Your task to perform on an android device: clear history in the chrome app Image 0: 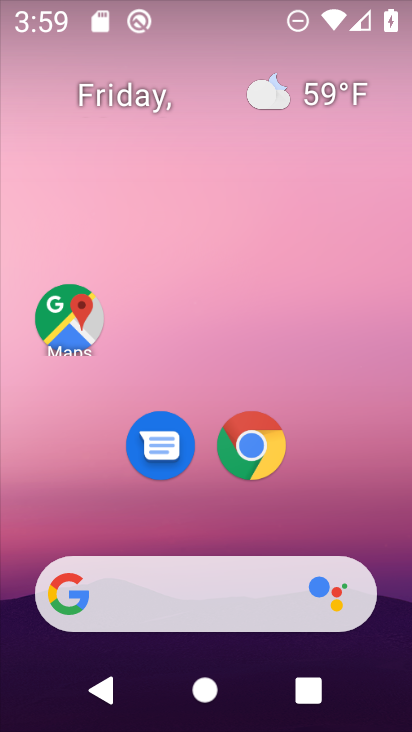
Step 0: click (247, 443)
Your task to perform on an android device: clear history in the chrome app Image 1: 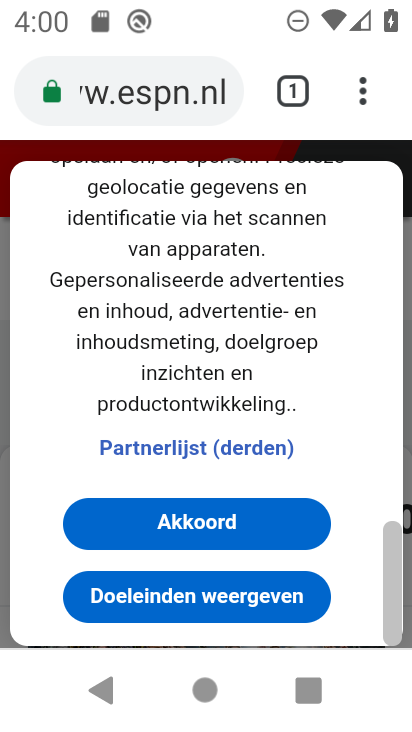
Step 1: click (359, 94)
Your task to perform on an android device: clear history in the chrome app Image 2: 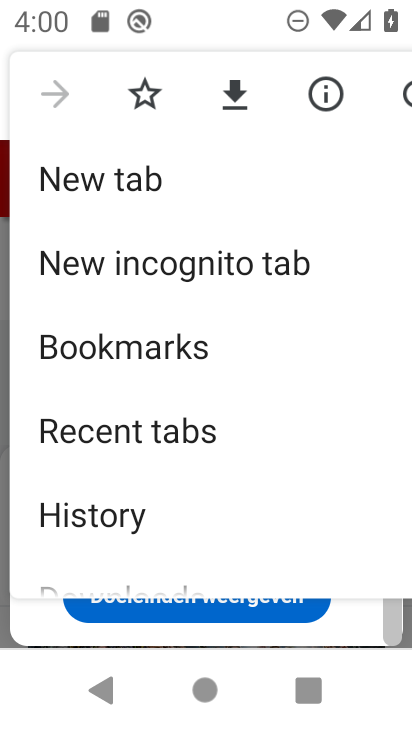
Step 2: click (84, 509)
Your task to perform on an android device: clear history in the chrome app Image 3: 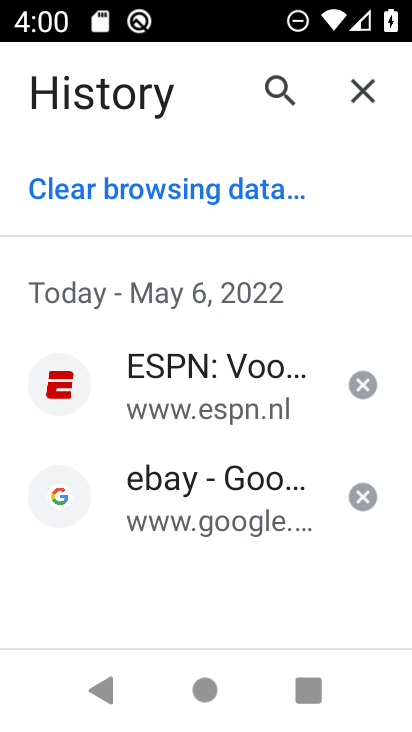
Step 3: click (141, 186)
Your task to perform on an android device: clear history in the chrome app Image 4: 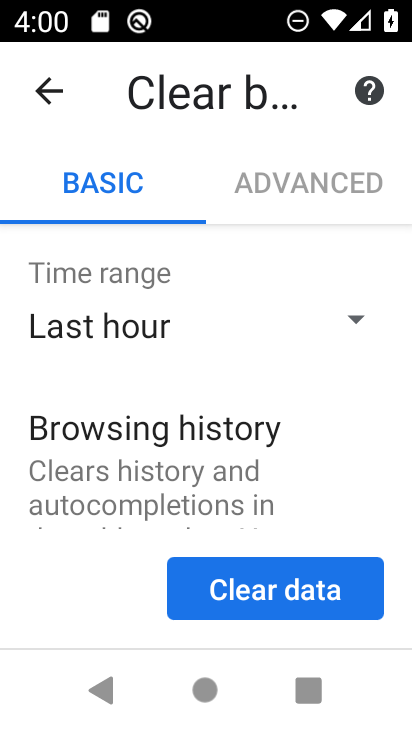
Step 4: drag from (254, 485) to (269, 216)
Your task to perform on an android device: clear history in the chrome app Image 5: 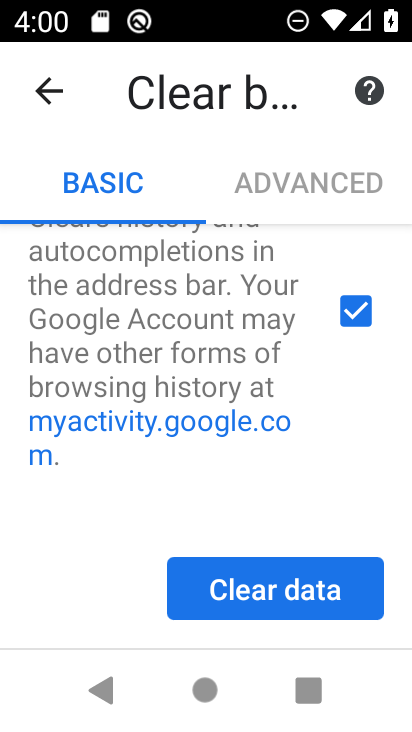
Step 5: drag from (239, 471) to (242, 110)
Your task to perform on an android device: clear history in the chrome app Image 6: 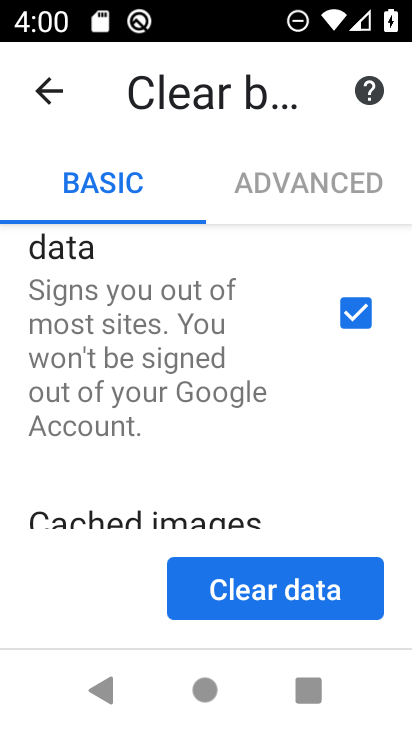
Step 6: click (357, 309)
Your task to perform on an android device: clear history in the chrome app Image 7: 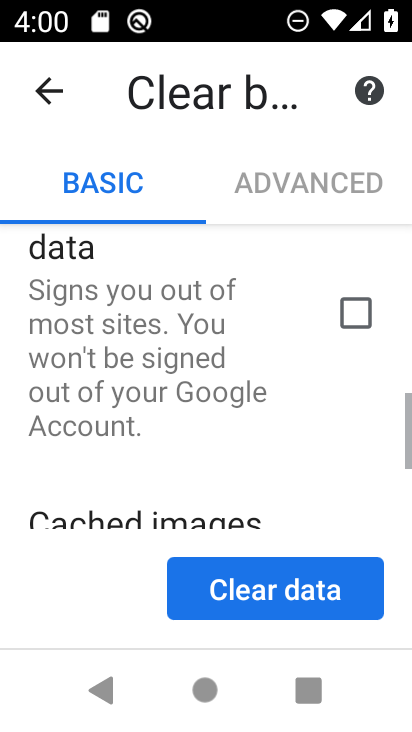
Step 7: drag from (272, 488) to (257, 144)
Your task to perform on an android device: clear history in the chrome app Image 8: 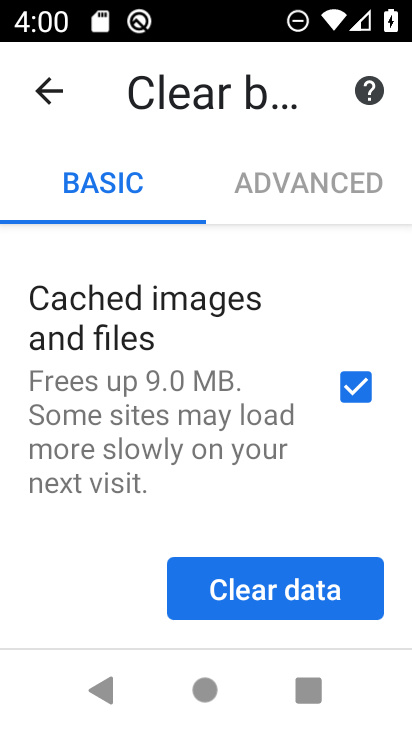
Step 8: click (354, 393)
Your task to perform on an android device: clear history in the chrome app Image 9: 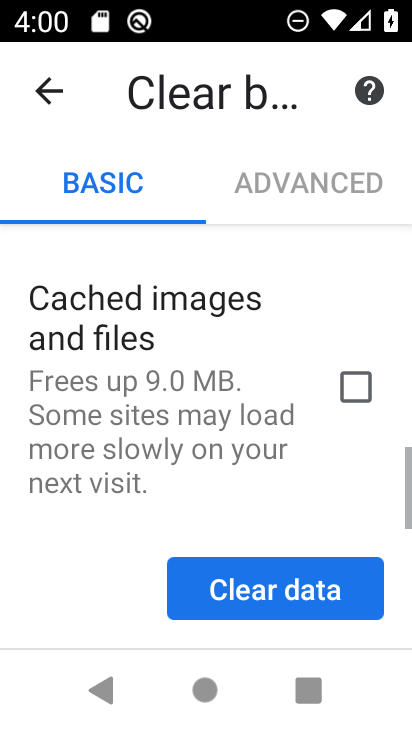
Step 9: click (262, 595)
Your task to perform on an android device: clear history in the chrome app Image 10: 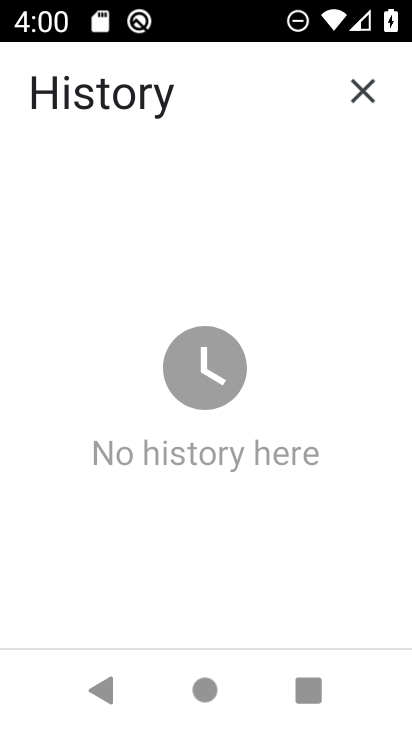
Step 10: task complete